Your task to perform on an android device: open a new tab in the chrome app Image 0: 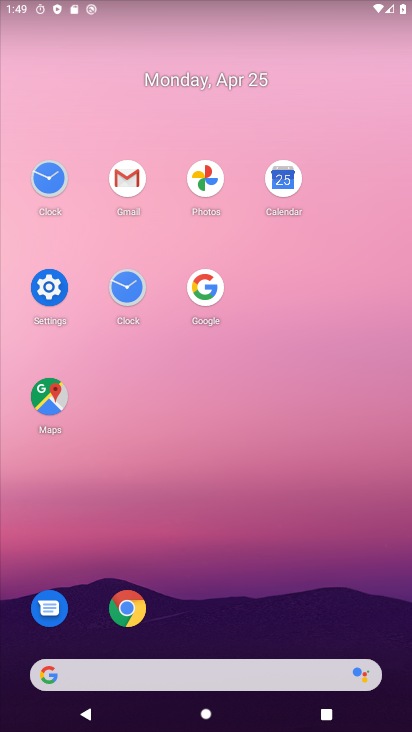
Step 0: click (112, 606)
Your task to perform on an android device: open a new tab in the chrome app Image 1: 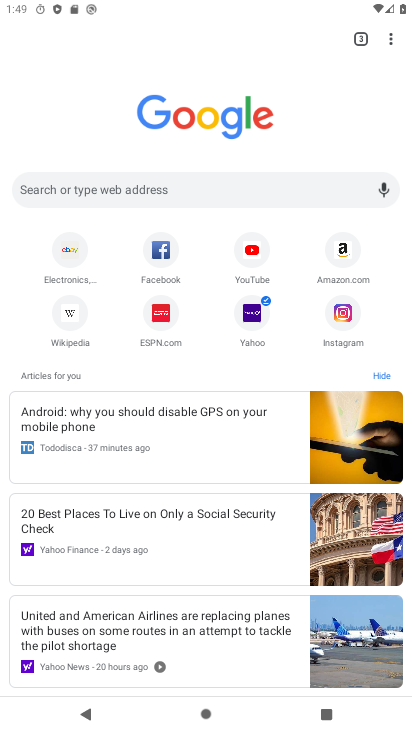
Step 1: click (359, 34)
Your task to perform on an android device: open a new tab in the chrome app Image 2: 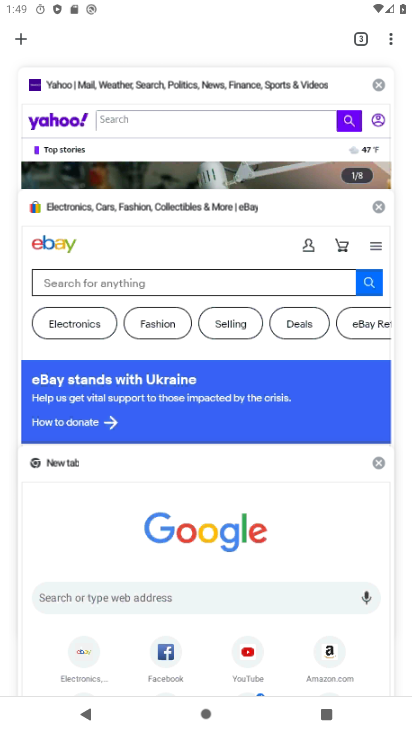
Step 2: click (18, 42)
Your task to perform on an android device: open a new tab in the chrome app Image 3: 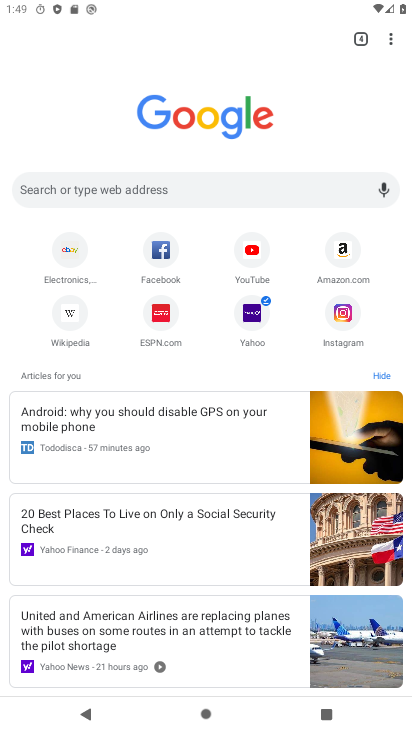
Step 3: task complete